Your task to perform on an android device: Search for bose soundlink on target, select the first entry, add it to the cart, then select checkout. Image 0: 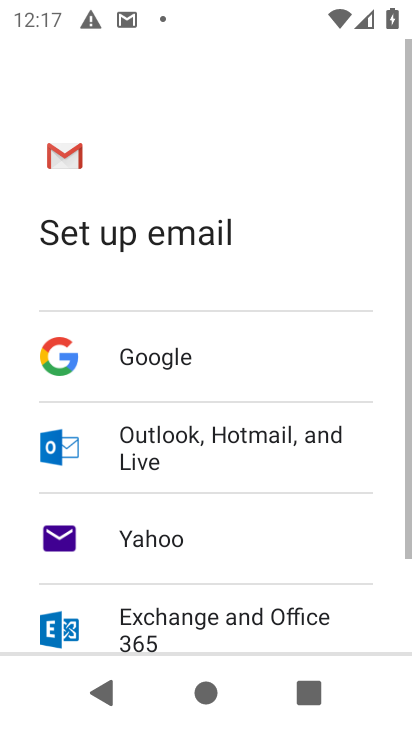
Step 0: press home button
Your task to perform on an android device: Search for bose soundlink on target, select the first entry, add it to the cart, then select checkout. Image 1: 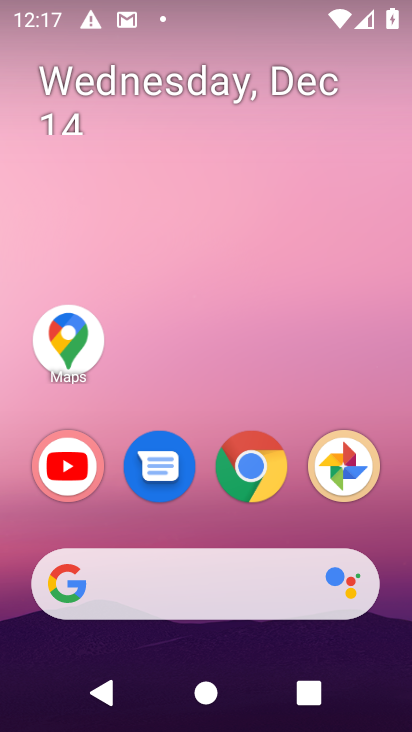
Step 1: click (200, 600)
Your task to perform on an android device: Search for bose soundlink on target, select the first entry, add it to the cart, then select checkout. Image 2: 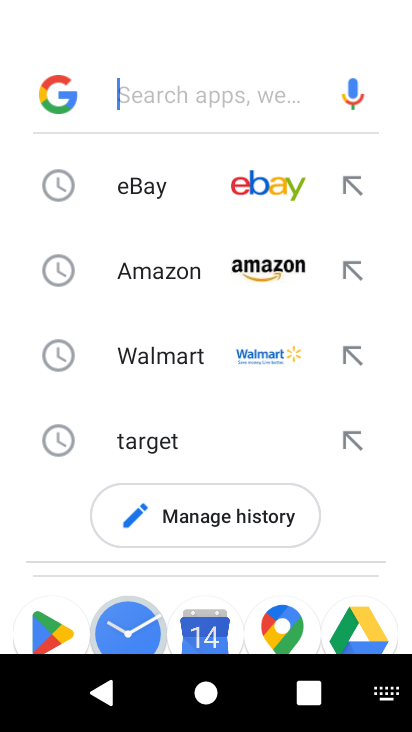
Step 2: click (160, 440)
Your task to perform on an android device: Search for bose soundlink on target, select the first entry, add it to the cart, then select checkout. Image 3: 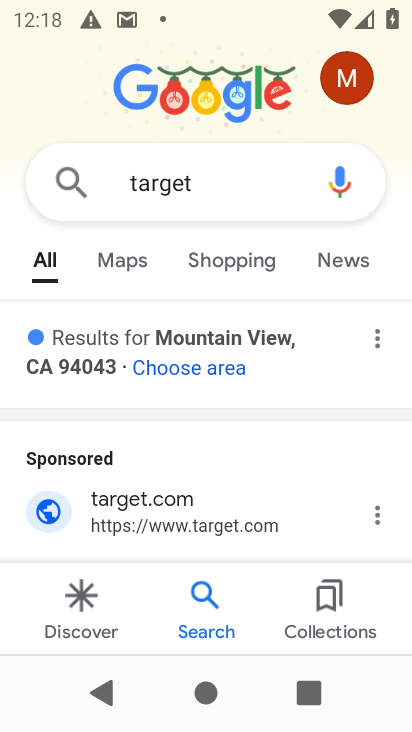
Step 3: drag from (186, 421) to (197, 328)
Your task to perform on an android device: Search for bose soundlink on target, select the first entry, add it to the cart, then select checkout. Image 4: 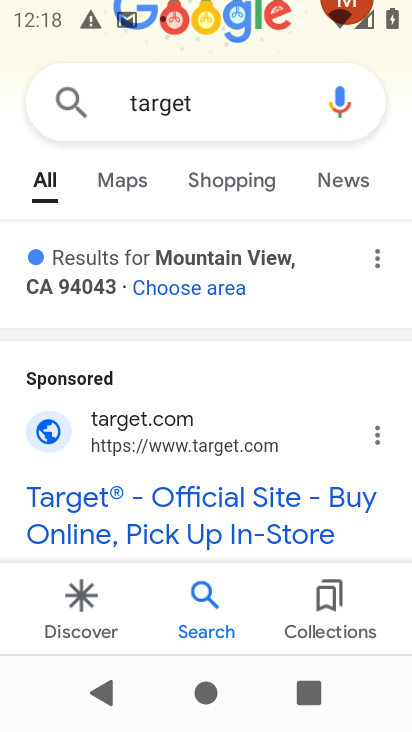
Step 4: drag from (181, 511) to (181, 374)
Your task to perform on an android device: Search for bose soundlink on target, select the first entry, add it to the cart, then select checkout. Image 5: 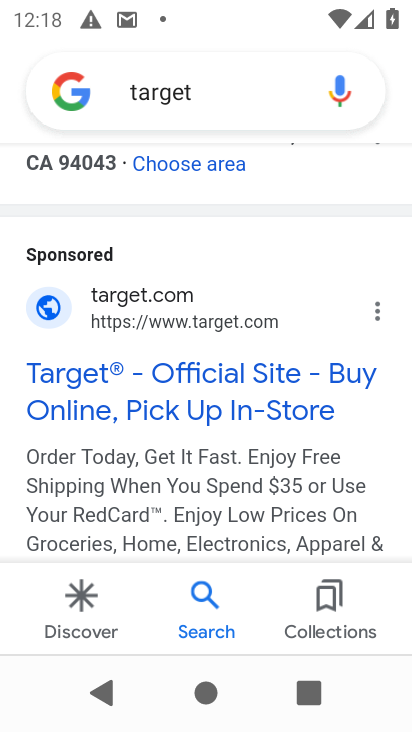
Step 5: drag from (168, 460) to (168, 192)
Your task to perform on an android device: Search for bose soundlink on target, select the first entry, add it to the cart, then select checkout. Image 6: 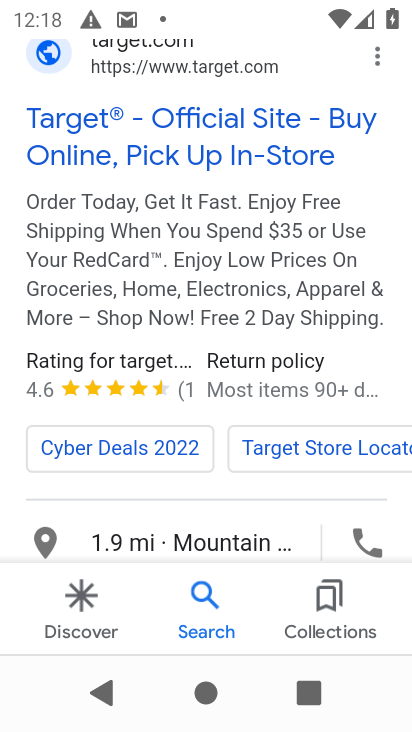
Step 6: drag from (221, 458) to (146, 104)
Your task to perform on an android device: Search for bose soundlink on target, select the first entry, add it to the cart, then select checkout. Image 7: 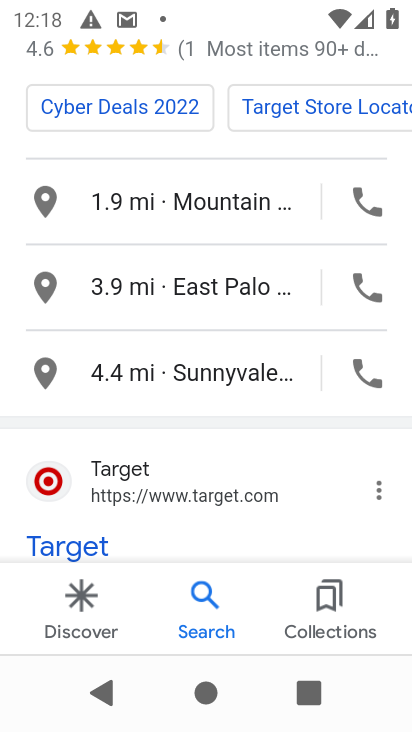
Step 7: click (147, 494)
Your task to perform on an android device: Search for bose soundlink on target, select the first entry, add it to the cart, then select checkout. Image 8: 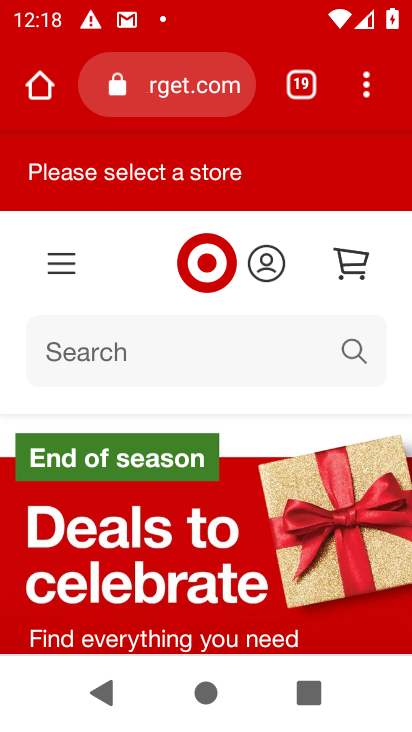
Step 8: click (206, 358)
Your task to perform on an android device: Search for bose soundlink on target, select the first entry, add it to the cart, then select checkout. Image 9: 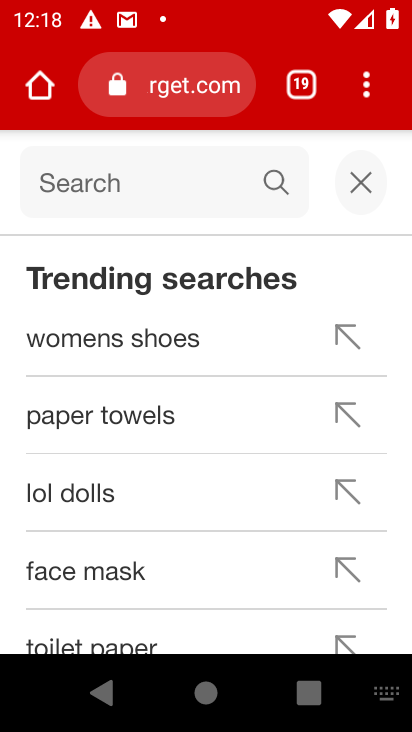
Step 9: type "bose soundlink"
Your task to perform on an android device: Search for bose soundlink on target, select the first entry, add it to the cart, then select checkout. Image 10: 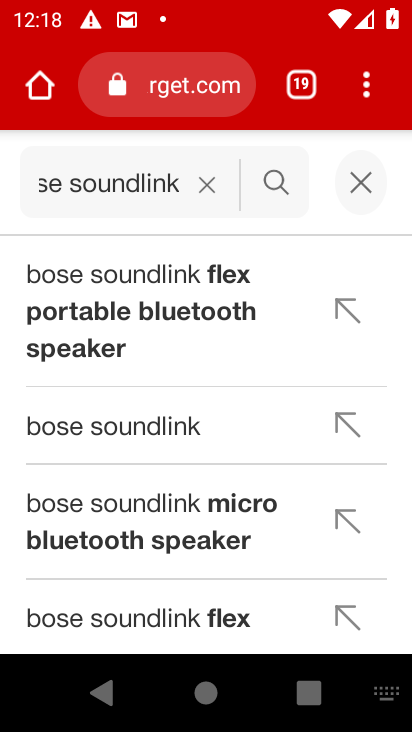
Step 10: click (264, 176)
Your task to perform on an android device: Search for bose soundlink on target, select the first entry, add it to the cart, then select checkout. Image 11: 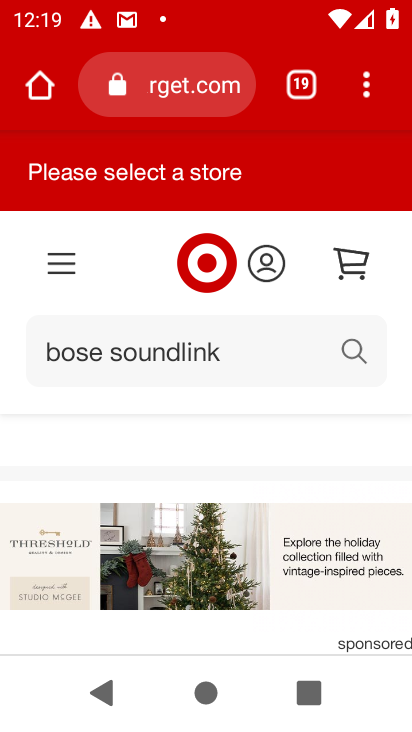
Step 11: drag from (266, 529) to (215, 227)
Your task to perform on an android device: Search for bose soundlink on target, select the first entry, add it to the cart, then select checkout. Image 12: 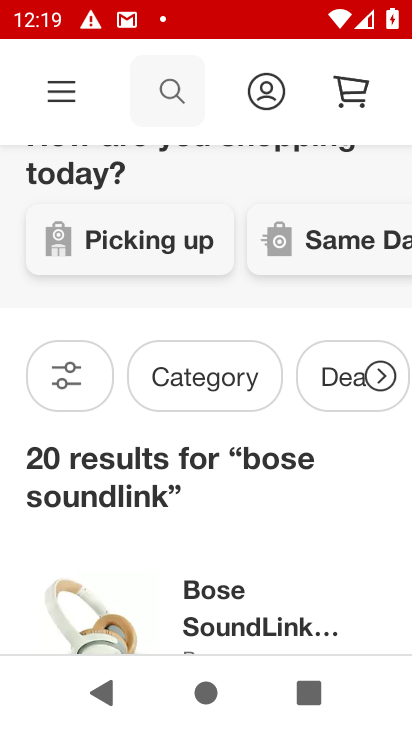
Step 12: drag from (296, 453) to (231, 213)
Your task to perform on an android device: Search for bose soundlink on target, select the first entry, add it to the cart, then select checkout. Image 13: 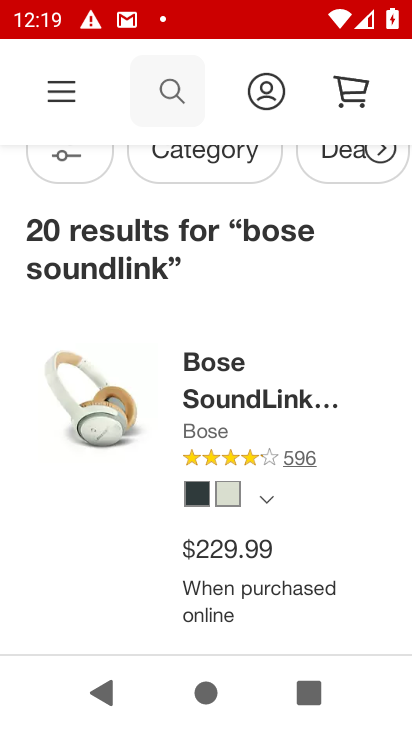
Step 13: drag from (311, 490) to (265, 345)
Your task to perform on an android device: Search for bose soundlink on target, select the first entry, add it to the cart, then select checkout. Image 14: 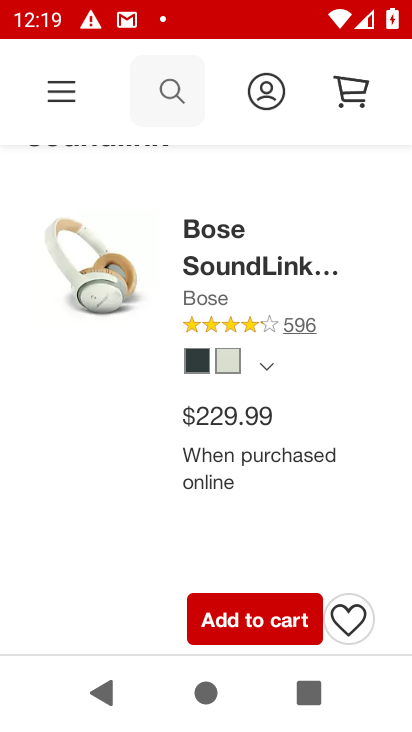
Step 14: click (272, 616)
Your task to perform on an android device: Search for bose soundlink on target, select the first entry, add it to the cart, then select checkout. Image 15: 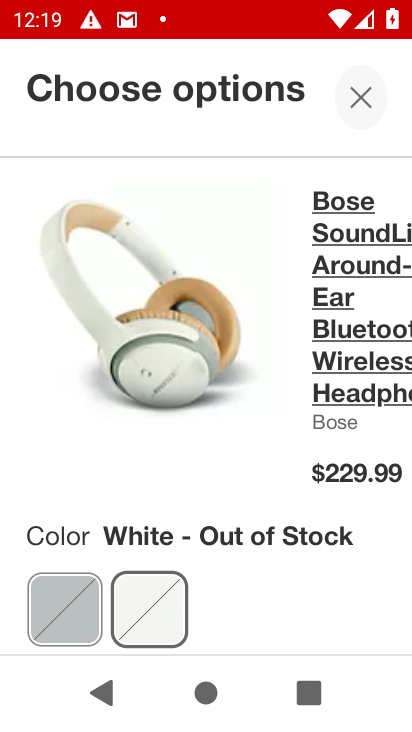
Step 15: task complete